Your task to perform on an android device: see creations saved in the google photos Image 0: 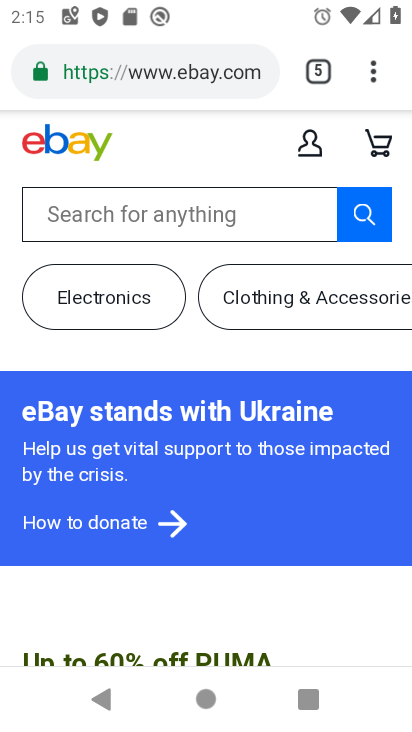
Step 0: press home button
Your task to perform on an android device: see creations saved in the google photos Image 1: 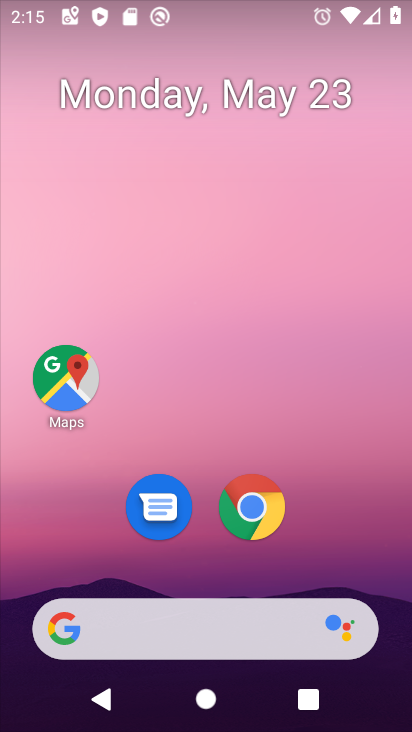
Step 1: drag from (229, 728) to (227, 119)
Your task to perform on an android device: see creations saved in the google photos Image 2: 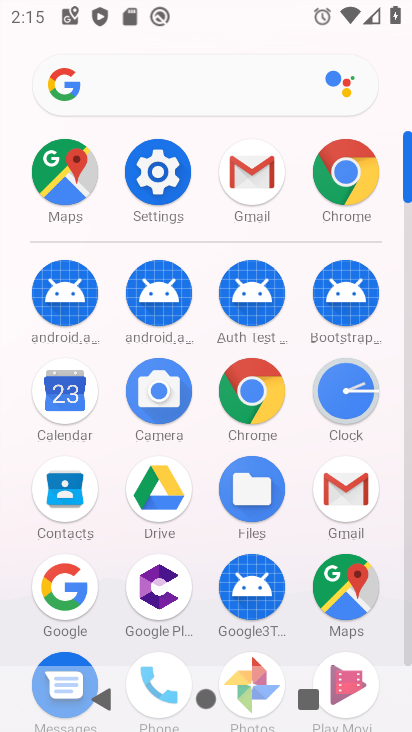
Step 2: click (249, 665)
Your task to perform on an android device: see creations saved in the google photos Image 3: 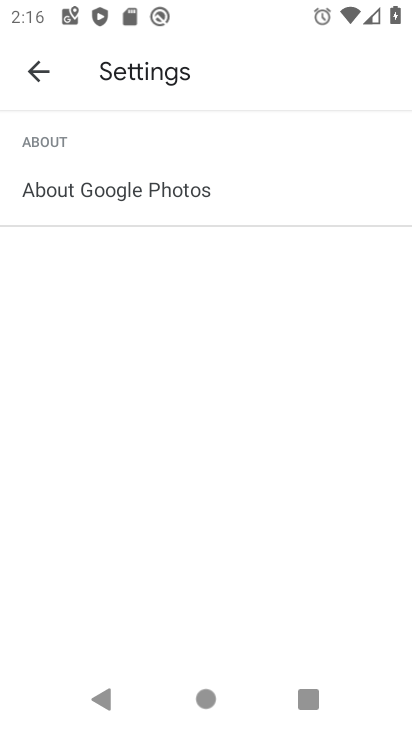
Step 3: click (36, 72)
Your task to perform on an android device: see creations saved in the google photos Image 4: 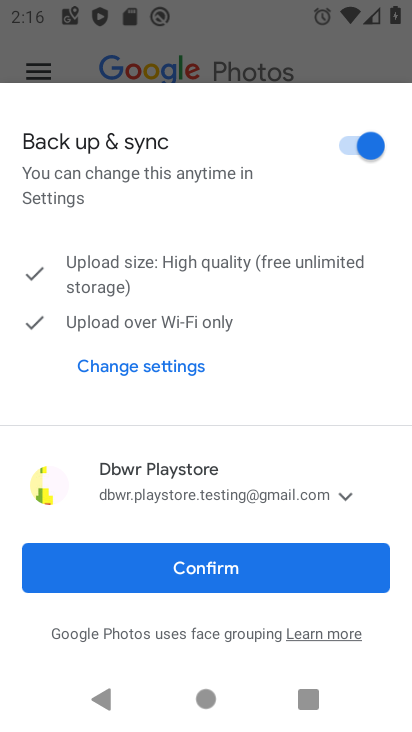
Step 4: click (190, 573)
Your task to perform on an android device: see creations saved in the google photos Image 5: 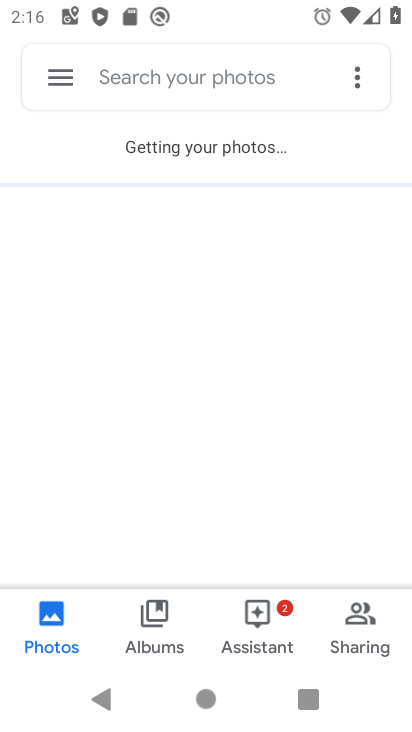
Step 5: click (167, 82)
Your task to perform on an android device: see creations saved in the google photos Image 6: 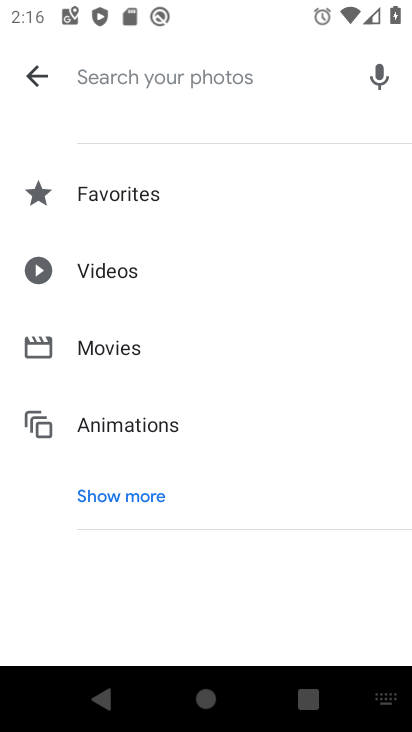
Step 6: click (124, 493)
Your task to perform on an android device: see creations saved in the google photos Image 7: 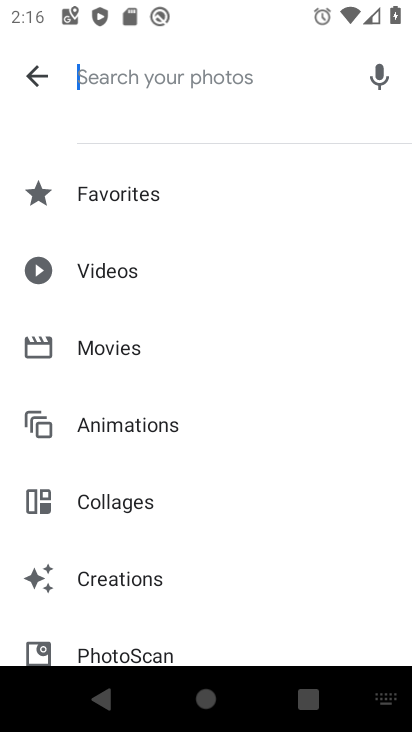
Step 7: click (125, 582)
Your task to perform on an android device: see creations saved in the google photos Image 8: 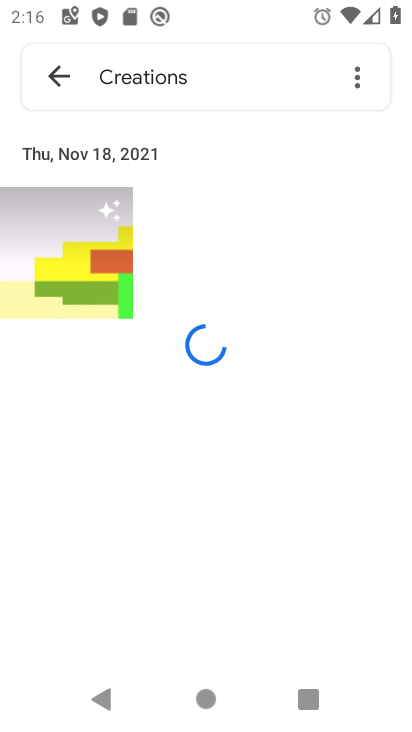
Step 8: task complete